Your task to perform on an android device: turn off picture-in-picture Image 0: 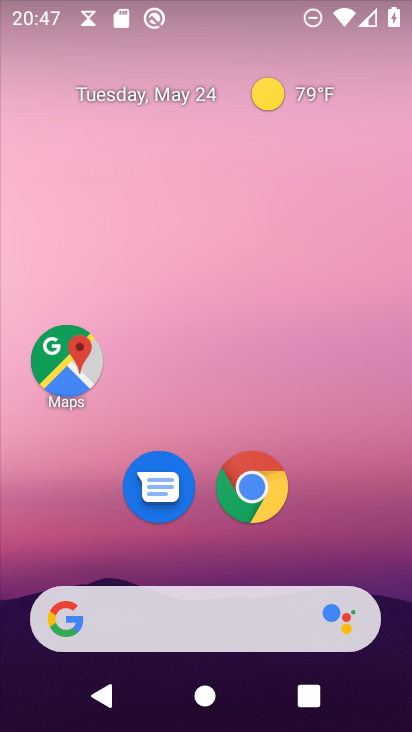
Step 0: press home button
Your task to perform on an android device: turn off picture-in-picture Image 1: 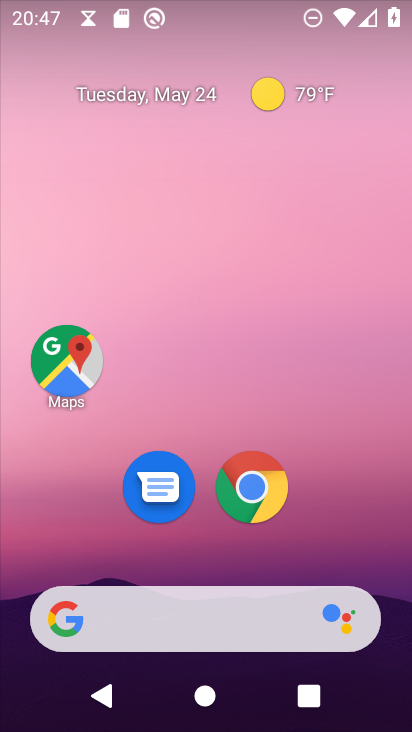
Step 1: drag from (27, 524) to (173, 69)
Your task to perform on an android device: turn off picture-in-picture Image 2: 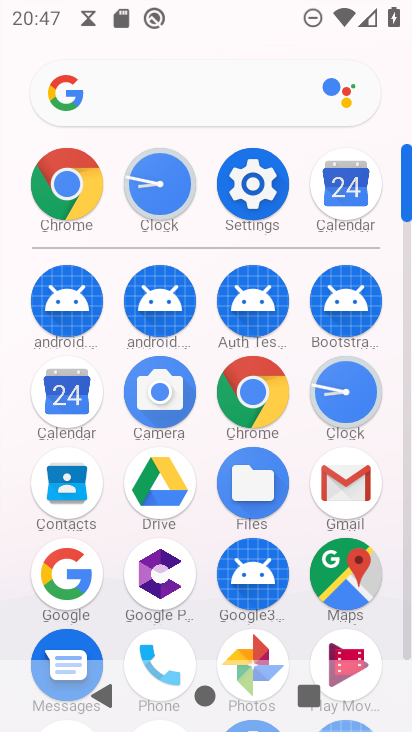
Step 2: click (182, 64)
Your task to perform on an android device: turn off picture-in-picture Image 3: 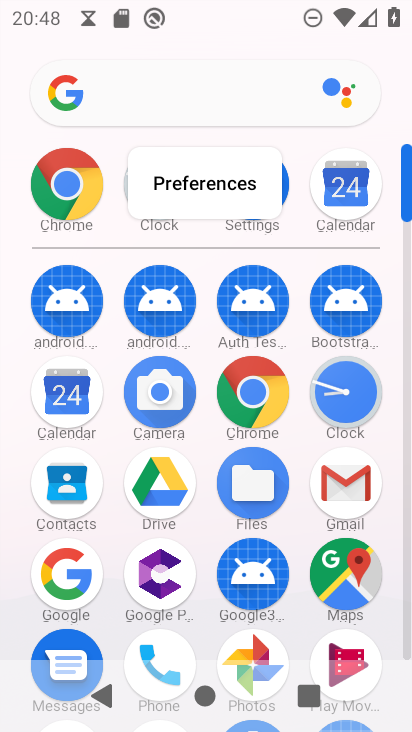
Step 3: drag from (11, 535) to (171, 348)
Your task to perform on an android device: turn off picture-in-picture Image 4: 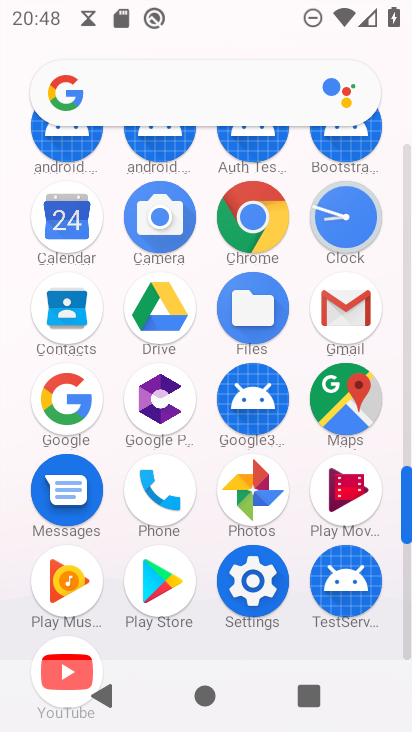
Step 4: click (256, 565)
Your task to perform on an android device: turn off picture-in-picture Image 5: 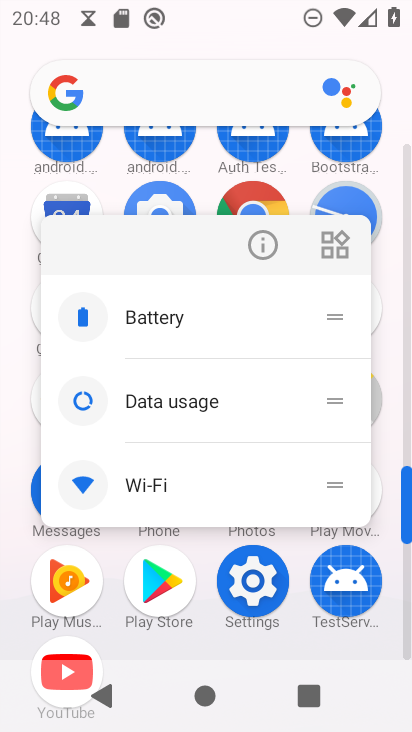
Step 5: click (242, 566)
Your task to perform on an android device: turn off picture-in-picture Image 6: 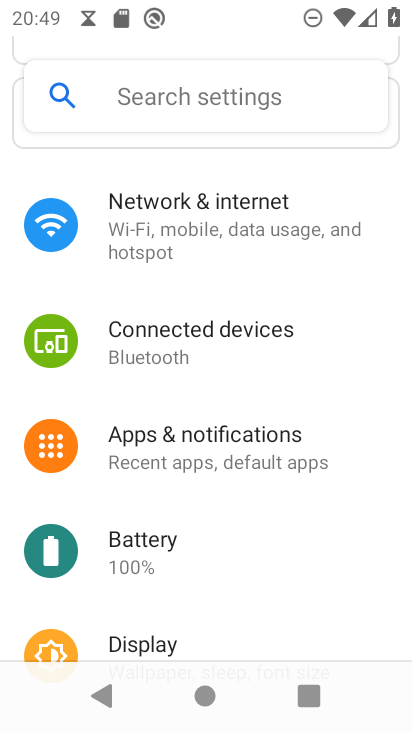
Step 6: drag from (72, 586) to (322, 190)
Your task to perform on an android device: turn off picture-in-picture Image 7: 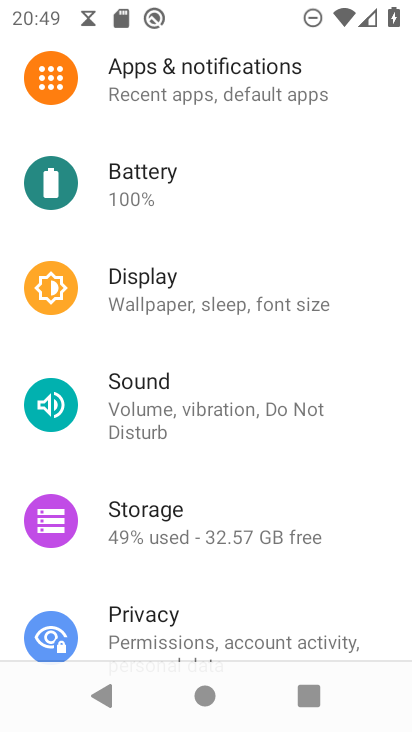
Step 7: click (286, 58)
Your task to perform on an android device: turn off picture-in-picture Image 8: 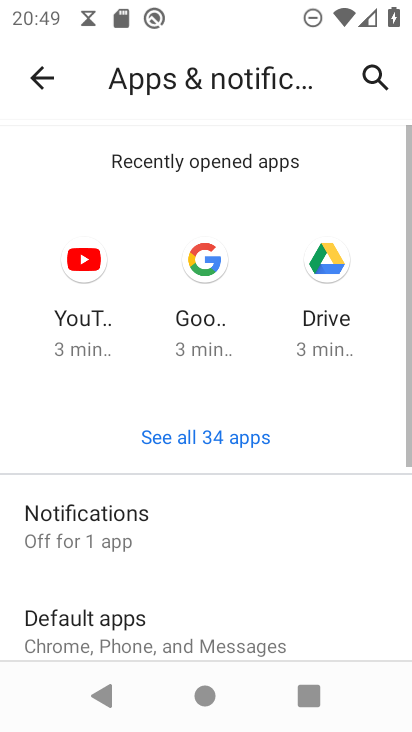
Step 8: drag from (128, 609) to (279, 239)
Your task to perform on an android device: turn off picture-in-picture Image 9: 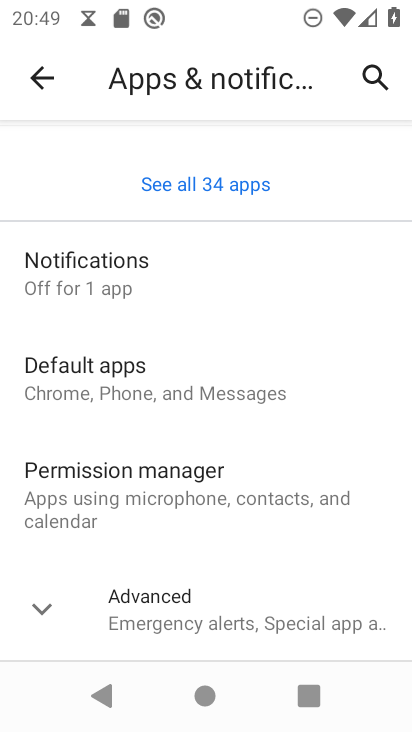
Step 9: click (147, 619)
Your task to perform on an android device: turn off picture-in-picture Image 10: 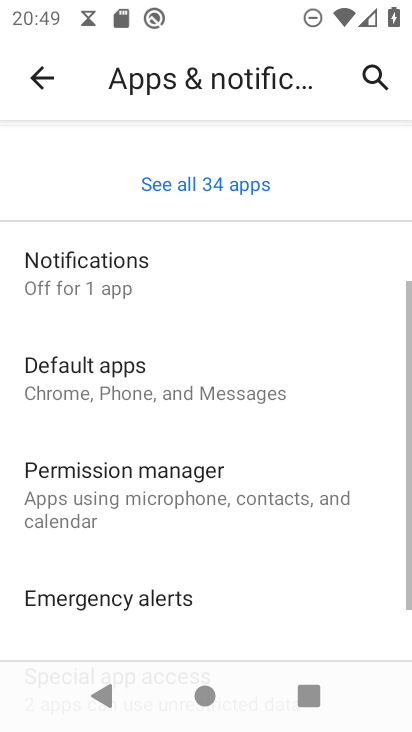
Step 10: drag from (147, 614) to (266, 270)
Your task to perform on an android device: turn off picture-in-picture Image 11: 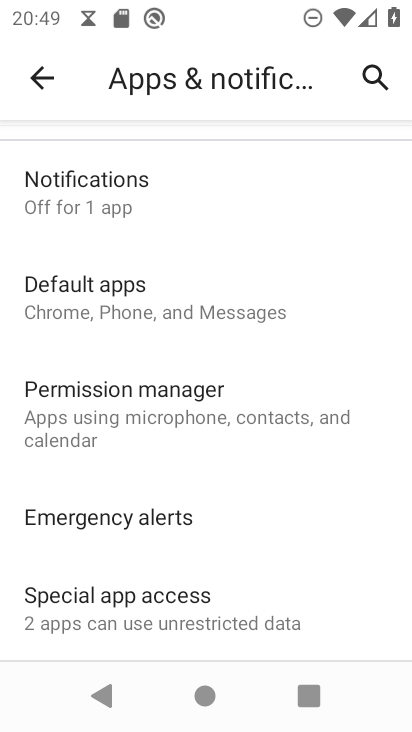
Step 11: click (140, 594)
Your task to perform on an android device: turn off picture-in-picture Image 12: 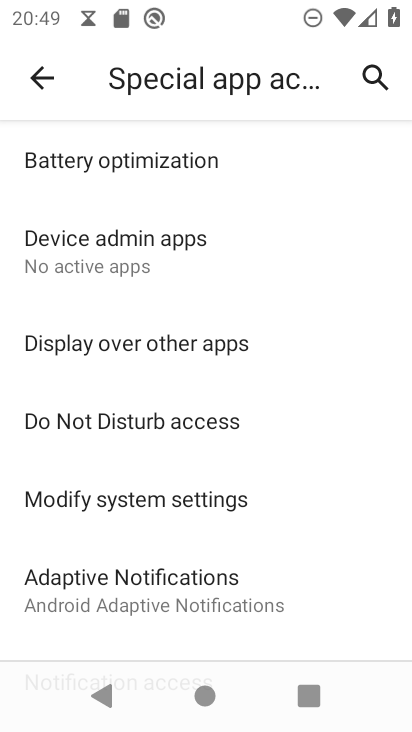
Step 12: drag from (86, 420) to (291, 159)
Your task to perform on an android device: turn off picture-in-picture Image 13: 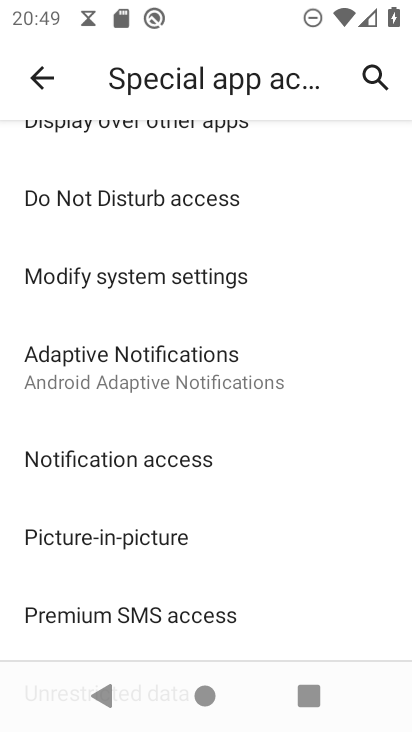
Step 13: click (182, 537)
Your task to perform on an android device: turn off picture-in-picture Image 14: 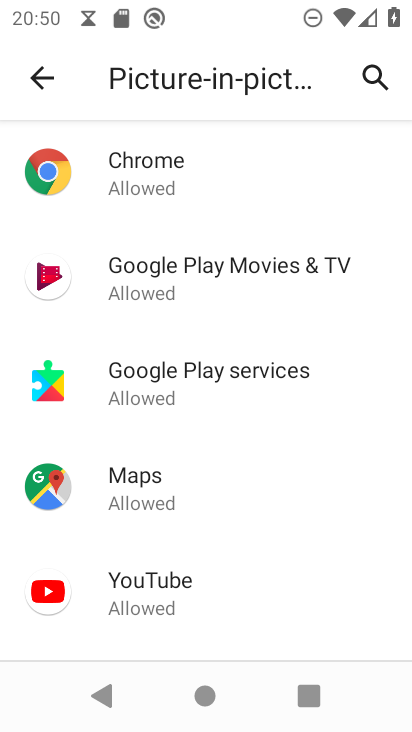
Step 14: click (210, 166)
Your task to perform on an android device: turn off picture-in-picture Image 15: 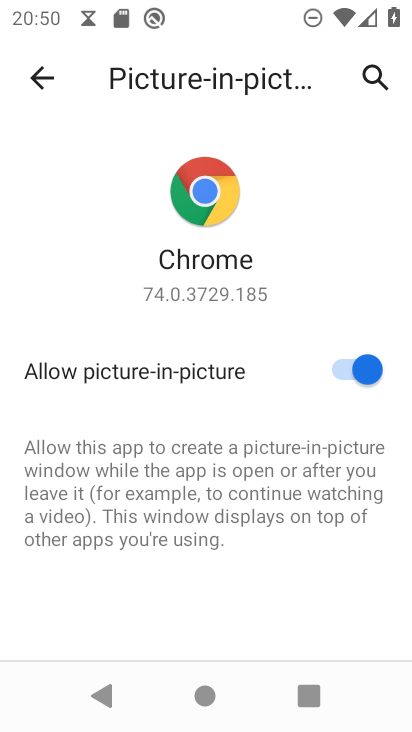
Step 15: click (360, 372)
Your task to perform on an android device: turn off picture-in-picture Image 16: 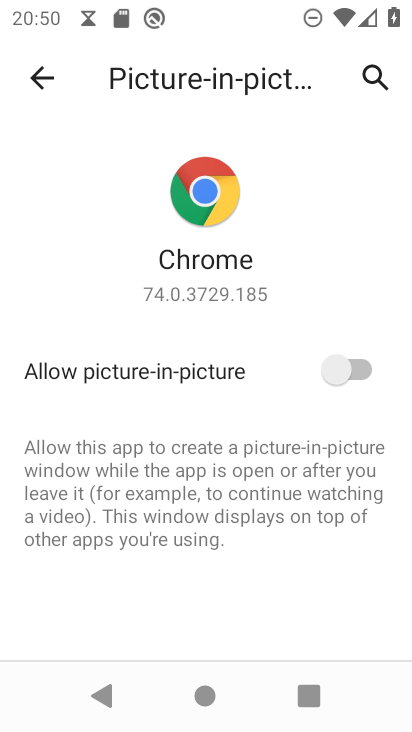
Step 16: task complete